Your task to perform on an android device: Show me the alarms in the clock app Image 0: 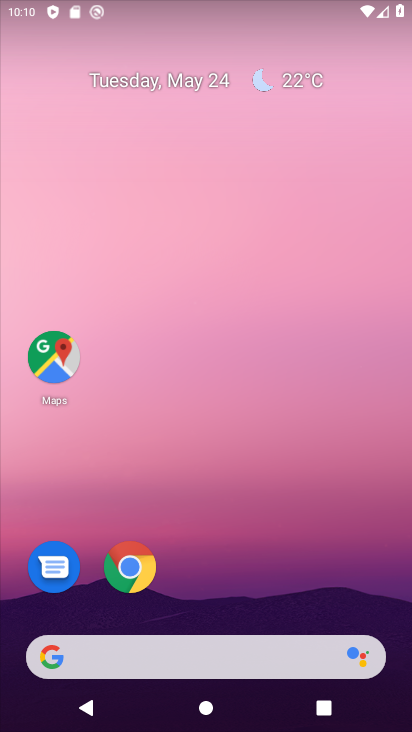
Step 0: drag from (306, 607) to (288, 3)
Your task to perform on an android device: Show me the alarms in the clock app Image 1: 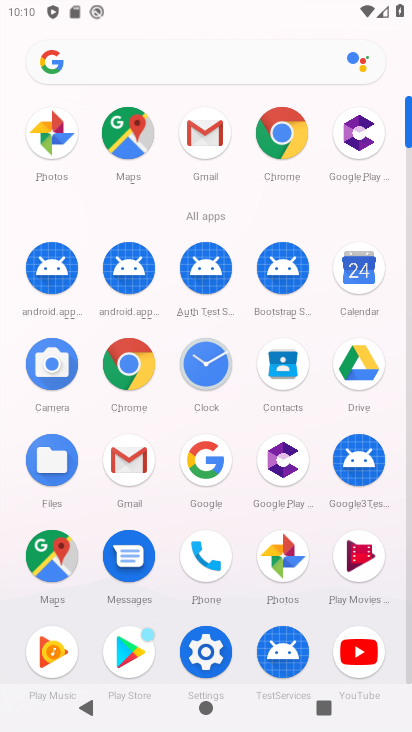
Step 1: click (209, 365)
Your task to perform on an android device: Show me the alarms in the clock app Image 2: 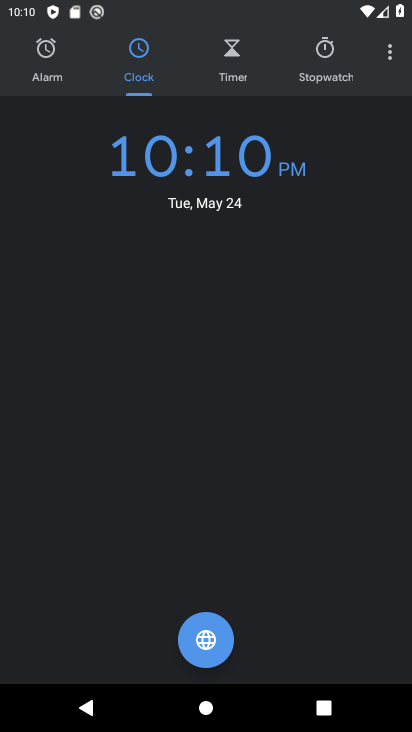
Step 2: click (48, 59)
Your task to perform on an android device: Show me the alarms in the clock app Image 3: 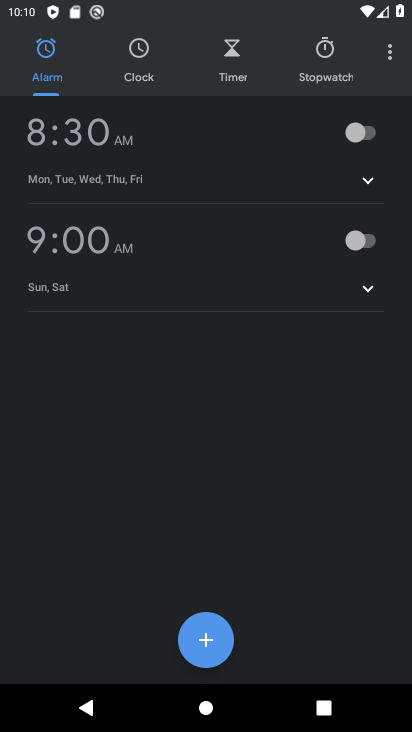
Step 3: task complete